Your task to perform on an android device: Go to Android settings Image 0: 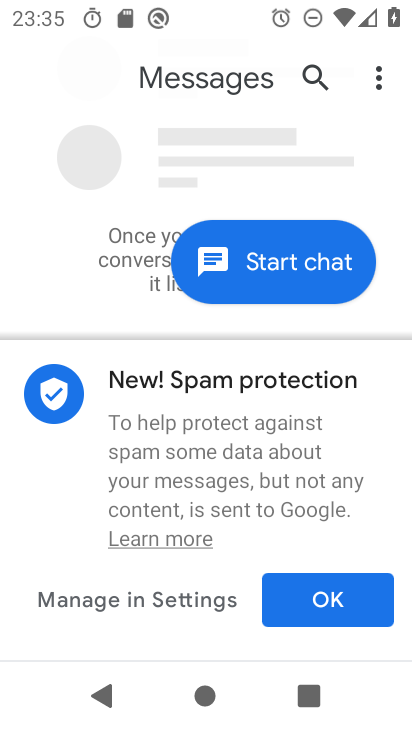
Step 0: press home button
Your task to perform on an android device: Go to Android settings Image 1: 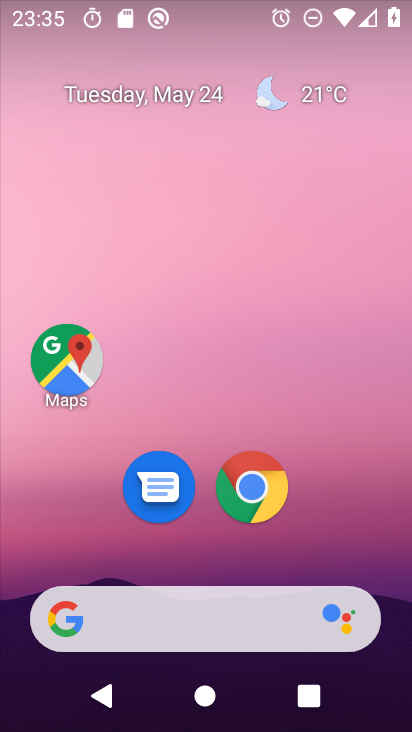
Step 1: drag from (351, 576) to (335, 0)
Your task to perform on an android device: Go to Android settings Image 2: 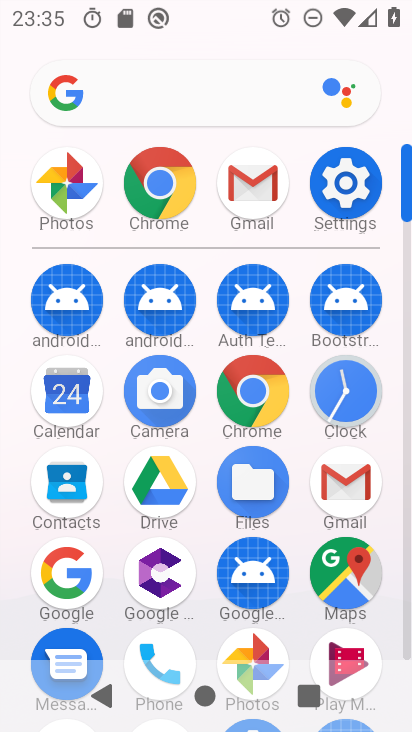
Step 2: click (356, 182)
Your task to perform on an android device: Go to Android settings Image 3: 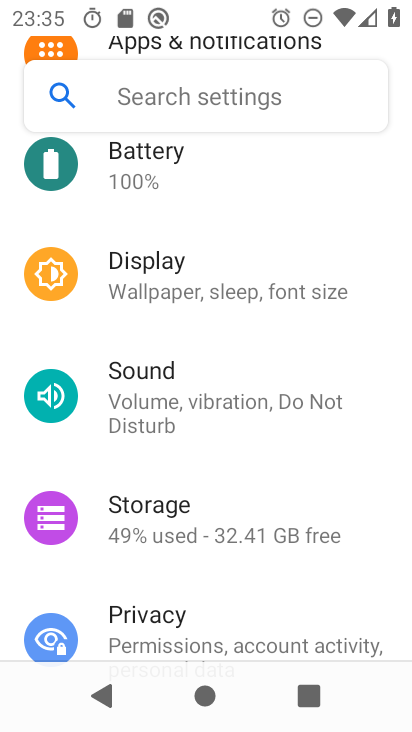
Step 3: task complete